Your task to perform on an android device: Go to accessibility settings Image 0: 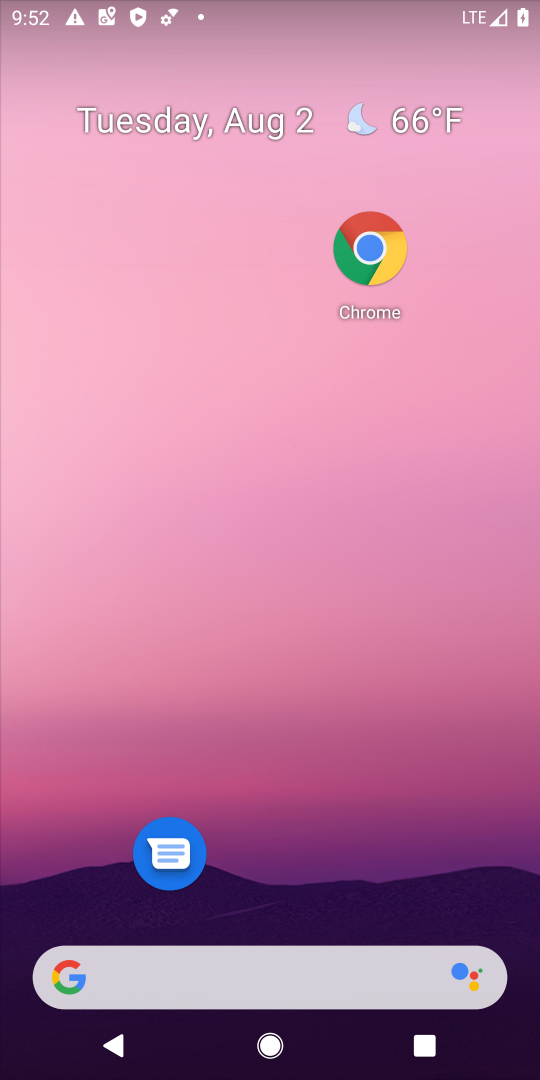
Step 0: drag from (286, 911) to (305, 35)
Your task to perform on an android device: Go to accessibility settings Image 1: 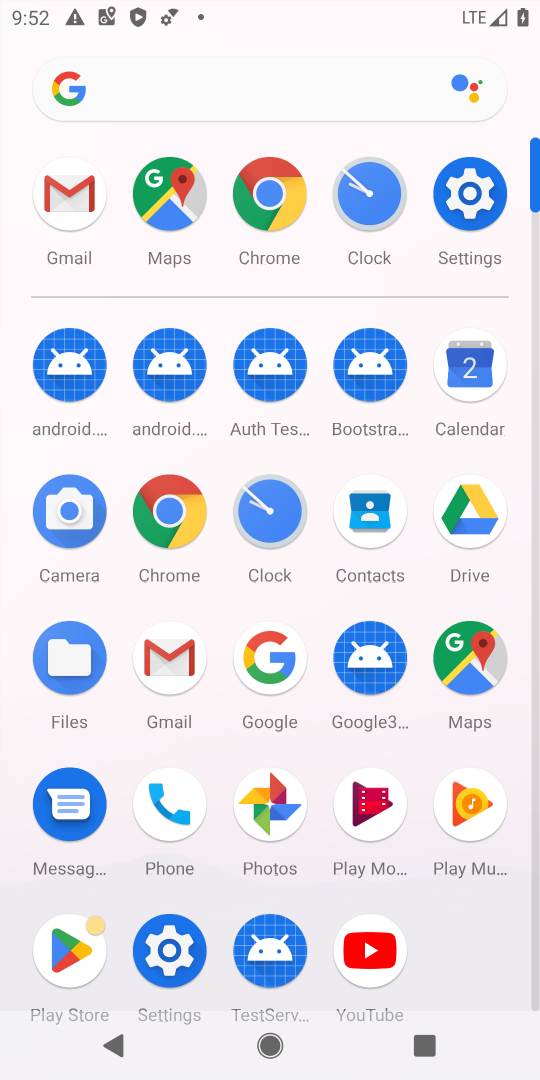
Step 1: click (477, 166)
Your task to perform on an android device: Go to accessibility settings Image 2: 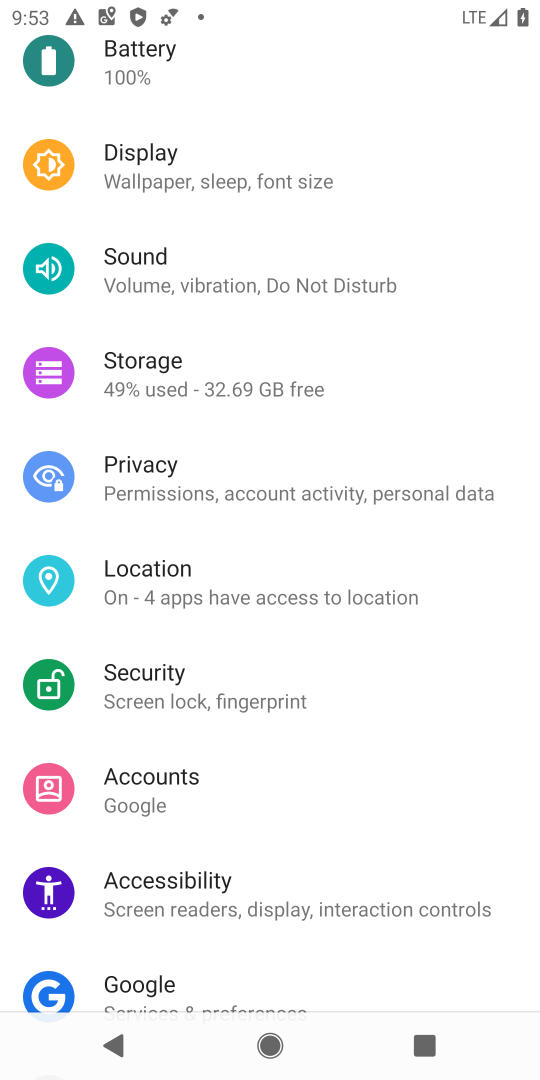
Step 2: click (190, 892)
Your task to perform on an android device: Go to accessibility settings Image 3: 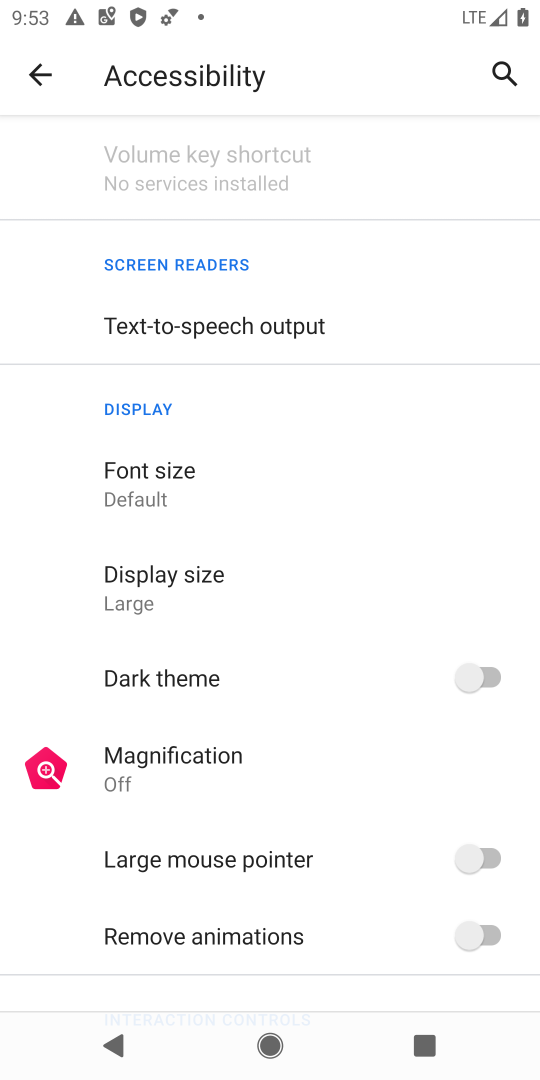
Step 3: task complete